Your task to perform on an android device: Go to settings Image 0: 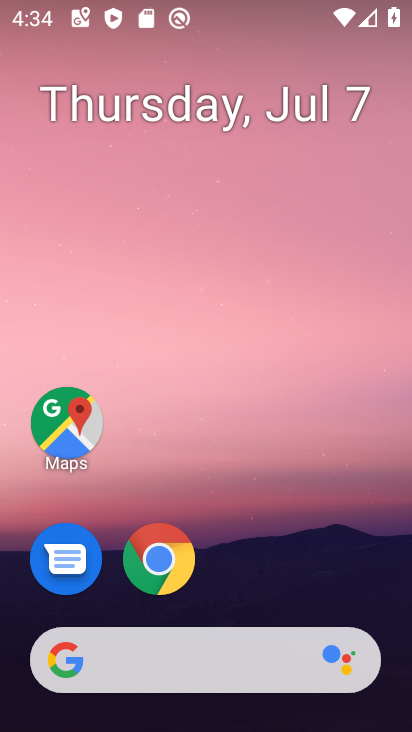
Step 0: drag from (217, 554) to (253, 34)
Your task to perform on an android device: Go to settings Image 1: 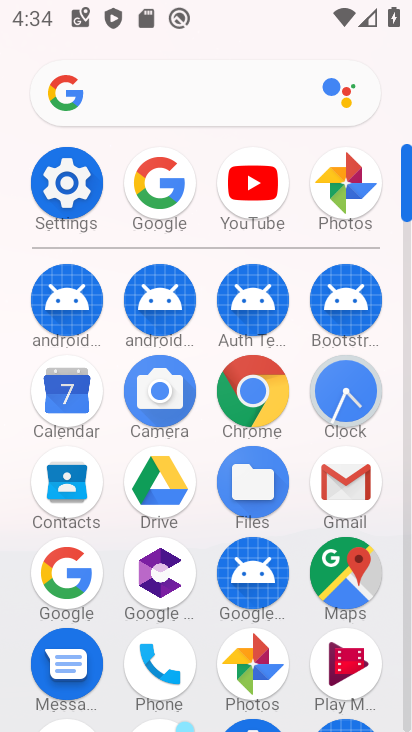
Step 1: click (60, 193)
Your task to perform on an android device: Go to settings Image 2: 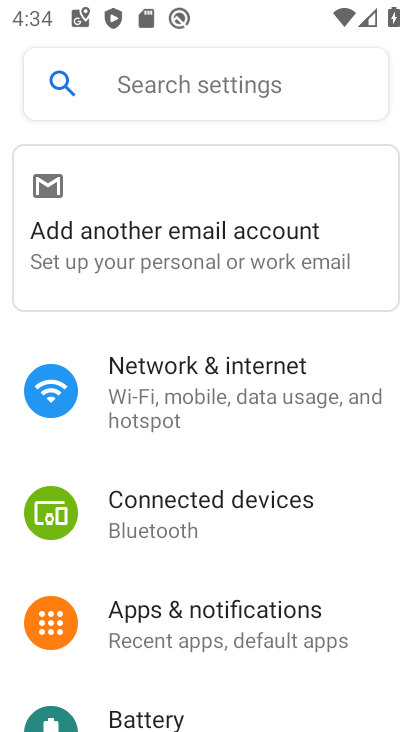
Step 2: task complete